Your task to perform on an android device: Go to Google maps Image 0: 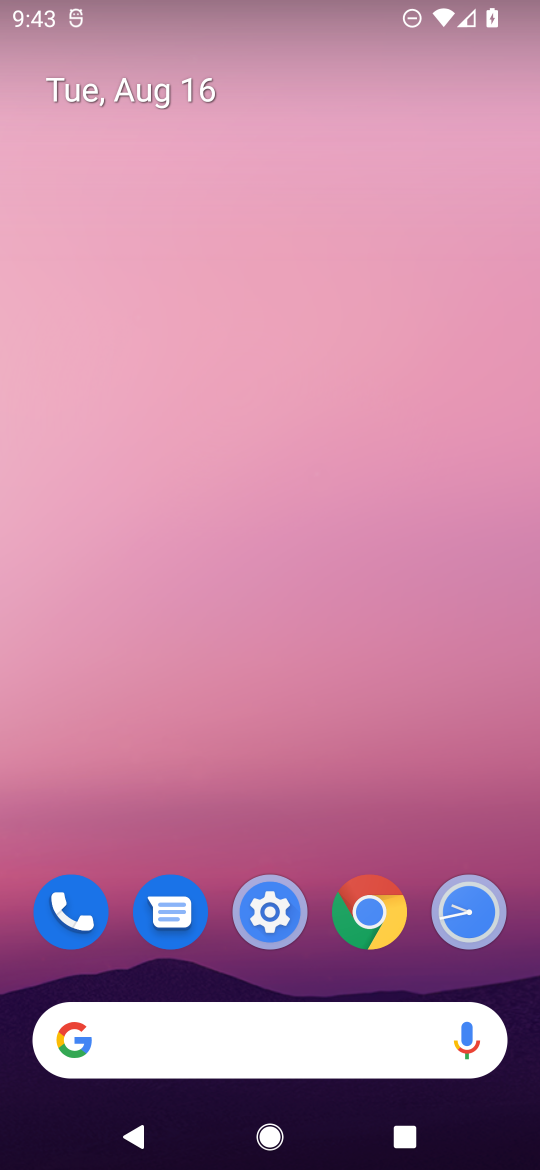
Step 0: drag from (205, 956) to (276, 305)
Your task to perform on an android device: Go to Google maps Image 1: 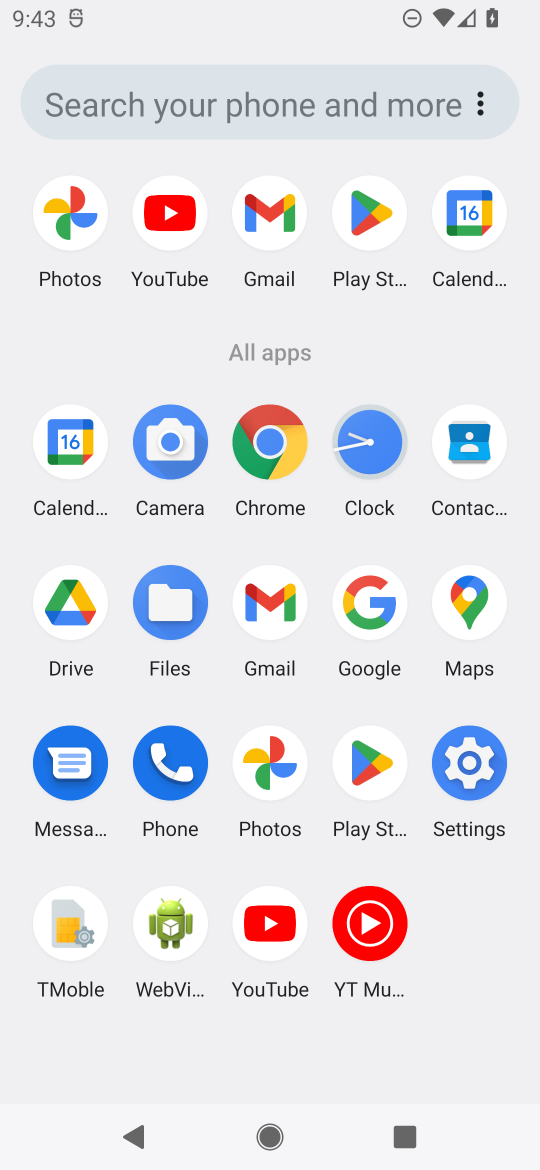
Step 1: click (467, 599)
Your task to perform on an android device: Go to Google maps Image 2: 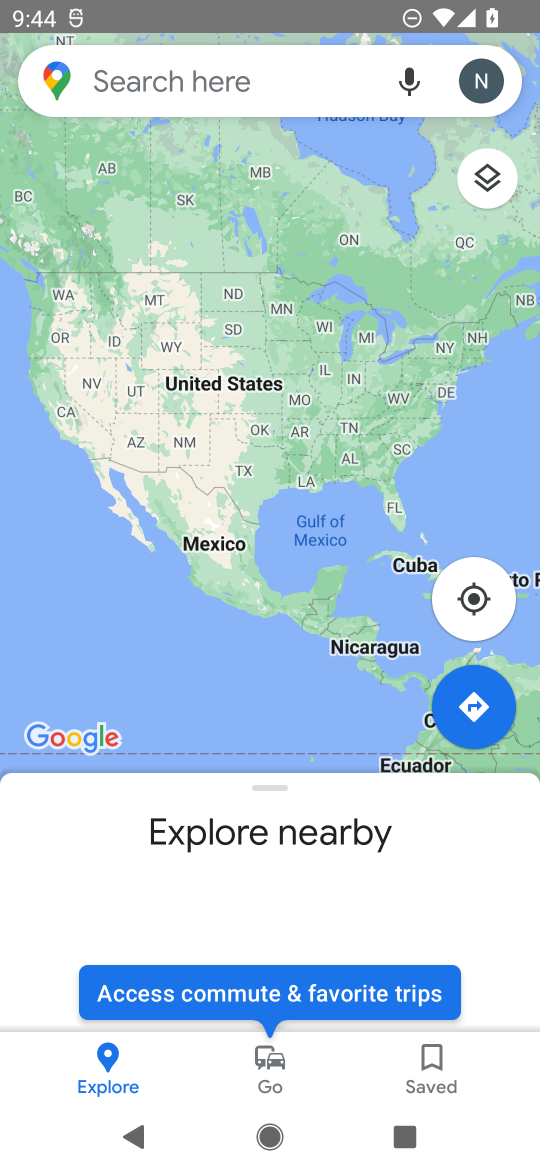
Step 2: task complete